Your task to perform on an android device: toggle translation in the chrome app Image 0: 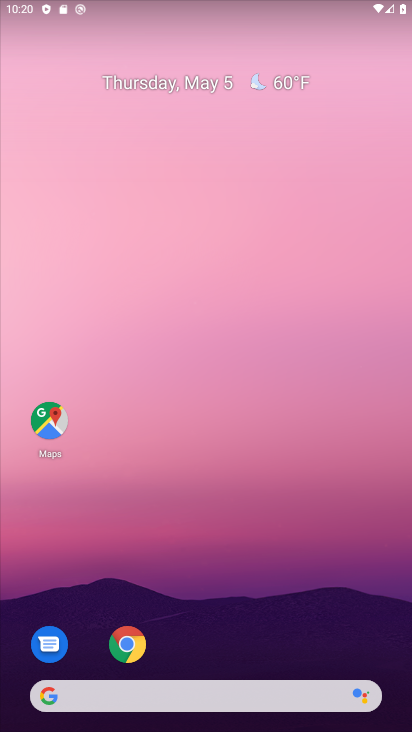
Step 0: drag from (373, 637) to (394, 240)
Your task to perform on an android device: toggle translation in the chrome app Image 1: 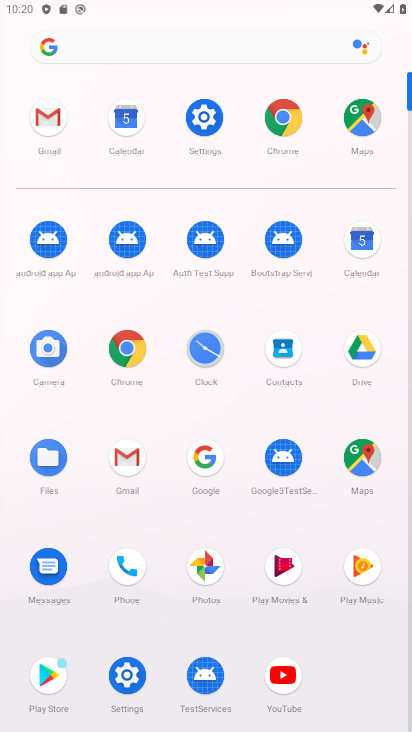
Step 1: click (130, 359)
Your task to perform on an android device: toggle translation in the chrome app Image 2: 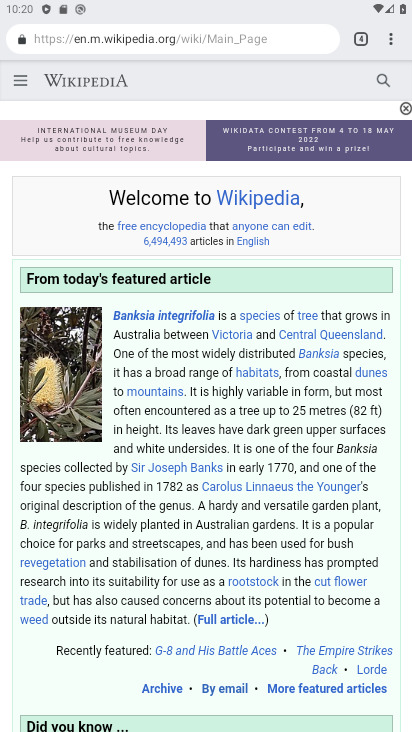
Step 2: drag from (395, 41) to (285, 434)
Your task to perform on an android device: toggle translation in the chrome app Image 3: 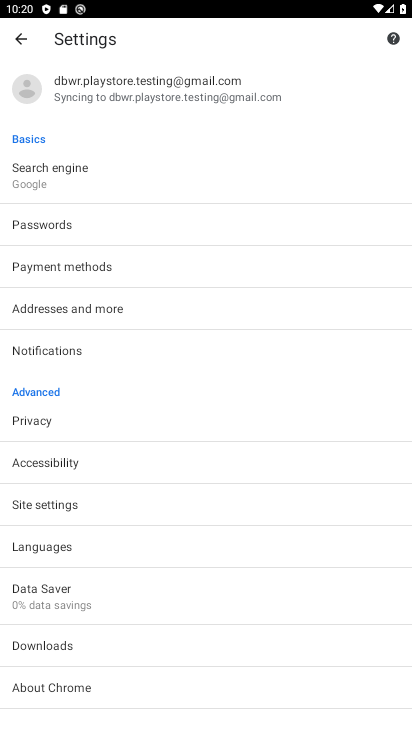
Step 3: click (96, 548)
Your task to perform on an android device: toggle translation in the chrome app Image 4: 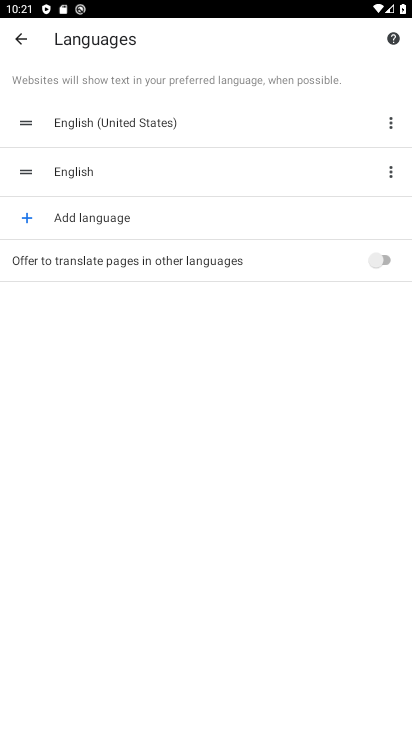
Step 4: click (389, 261)
Your task to perform on an android device: toggle translation in the chrome app Image 5: 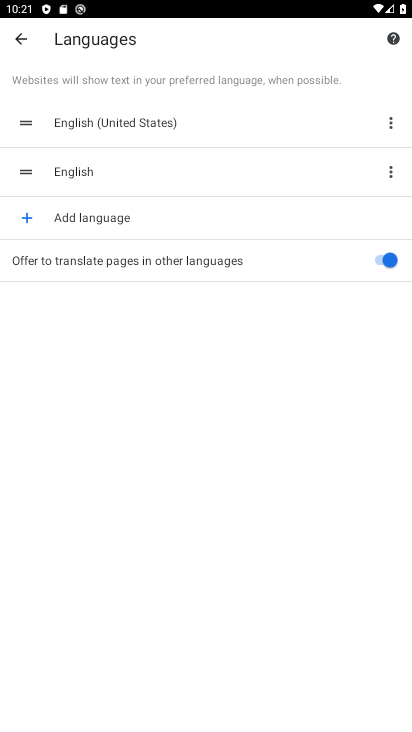
Step 5: task complete